Your task to perform on an android device: turn off smart reply in the gmail app Image 0: 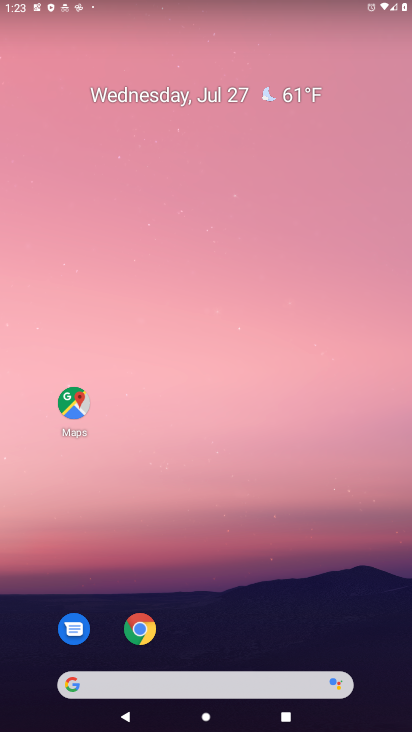
Step 0: drag from (347, 614) to (125, 61)
Your task to perform on an android device: turn off smart reply in the gmail app Image 1: 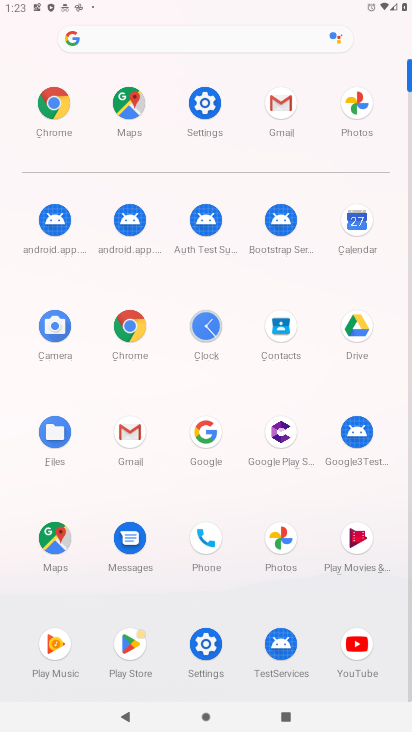
Step 1: click (290, 108)
Your task to perform on an android device: turn off smart reply in the gmail app Image 2: 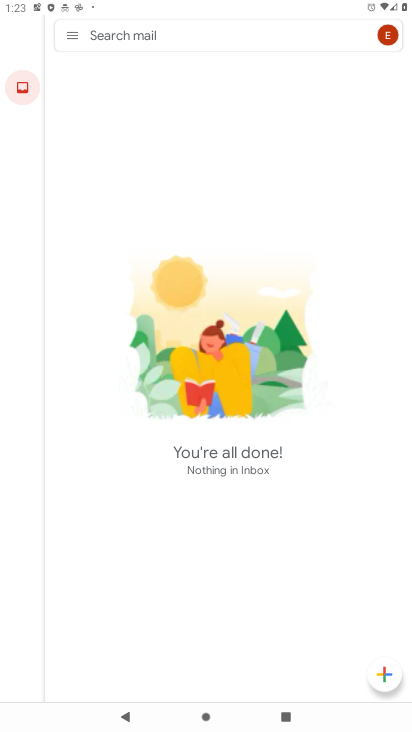
Step 2: click (72, 48)
Your task to perform on an android device: turn off smart reply in the gmail app Image 3: 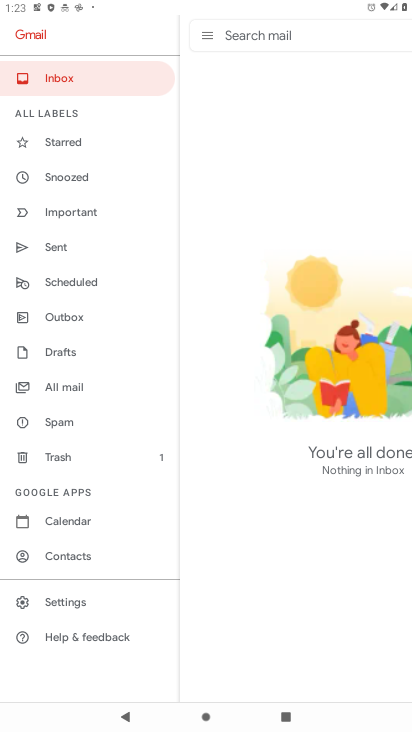
Step 3: click (110, 592)
Your task to perform on an android device: turn off smart reply in the gmail app Image 4: 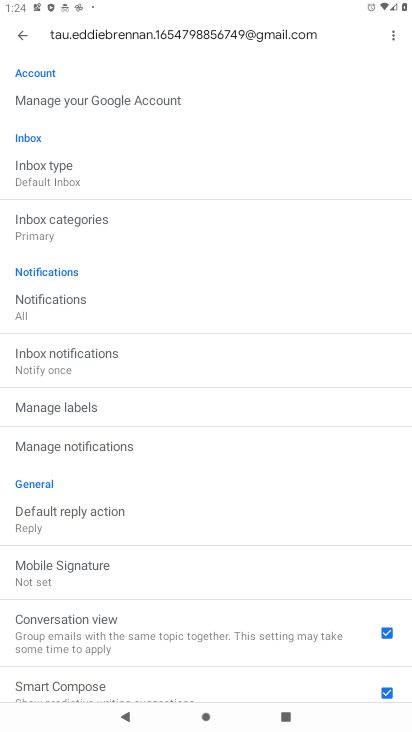
Step 4: task complete